Your task to perform on an android device: Open internet settings Image 0: 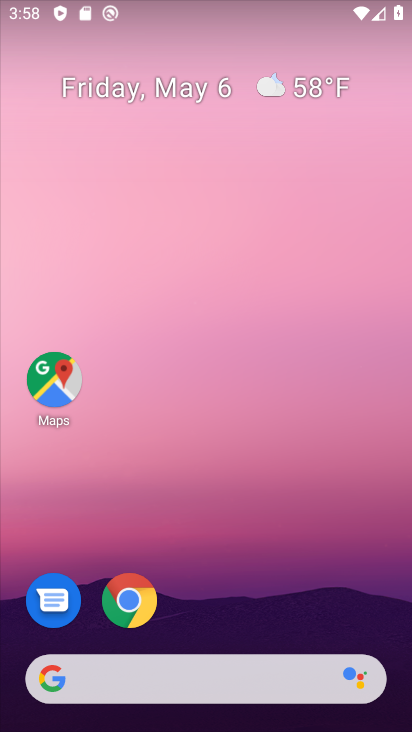
Step 0: drag from (254, 609) to (263, 10)
Your task to perform on an android device: Open internet settings Image 1: 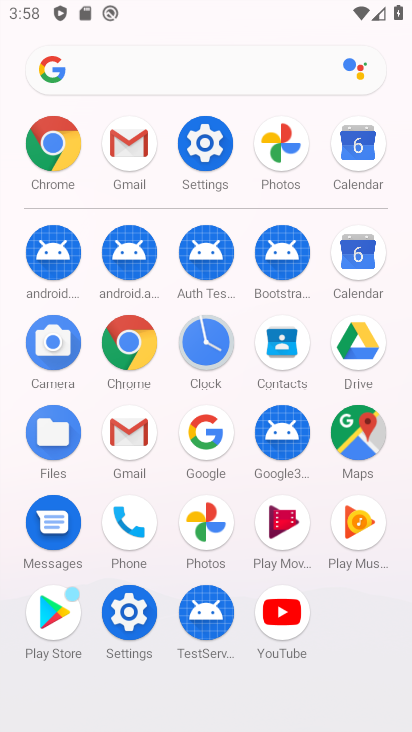
Step 1: click (195, 161)
Your task to perform on an android device: Open internet settings Image 2: 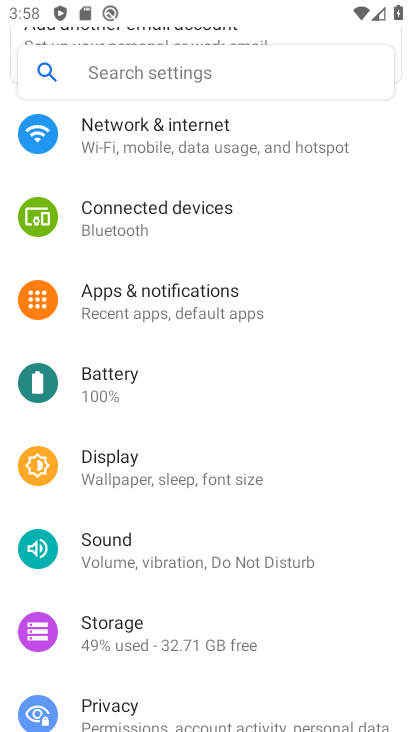
Step 2: click (175, 155)
Your task to perform on an android device: Open internet settings Image 3: 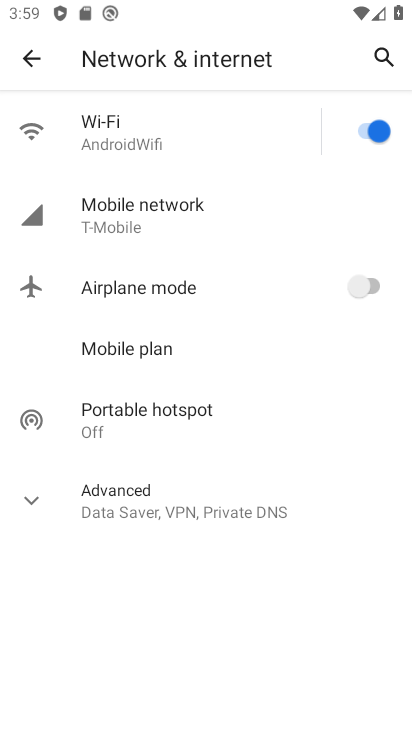
Step 3: task complete